Your task to perform on an android device: Go to internet settings Image 0: 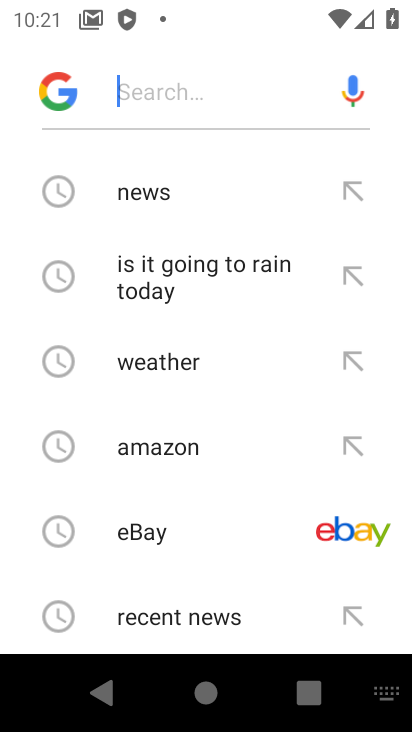
Step 0: press home button
Your task to perform on an android device: Go to internet settings Image 1: 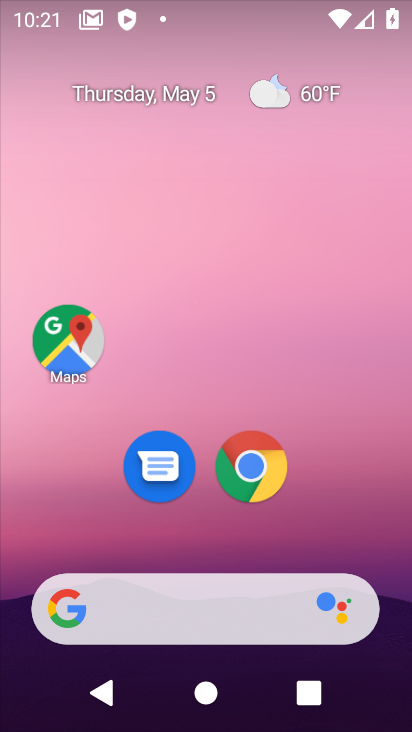
Step 1: drag from (157, 558) to (288, 226)
Your task to perform on an android device: Go to internet settings Image 2: 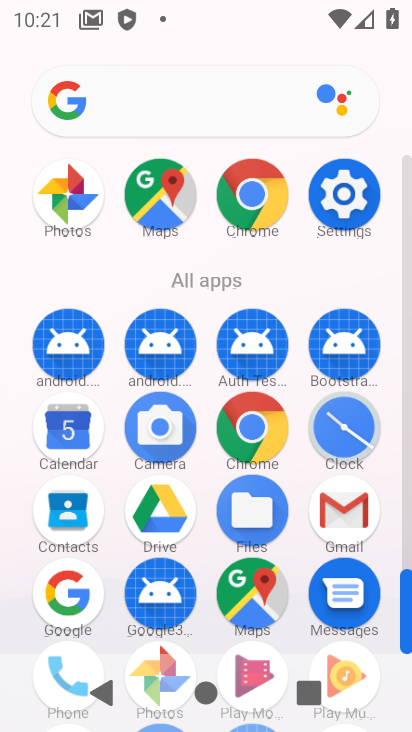
Step 2: click (352, 201)
Your task to perform on an android device: Go to internet settings Image 3: 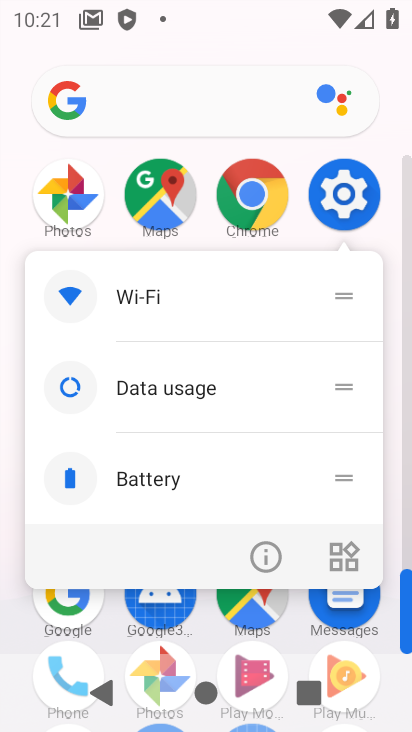
Step 3: click (338, 186)
Your task to perform on an android device: Go to internet settings Image 4: 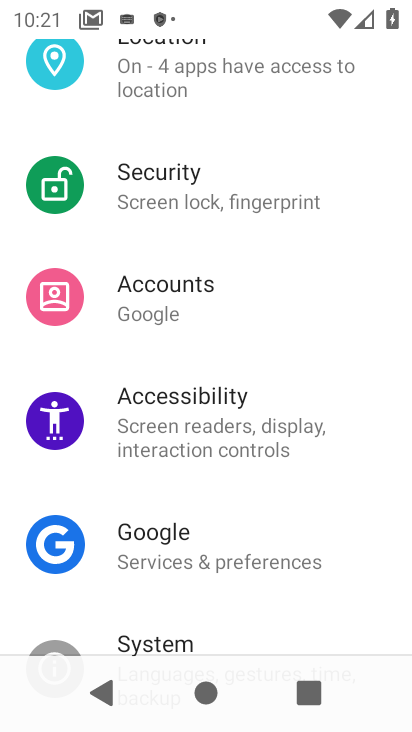
Step 4: drag from (218, 161) to (223, 644)
Your task to perform on an android device: Go to internet settings Image 5: 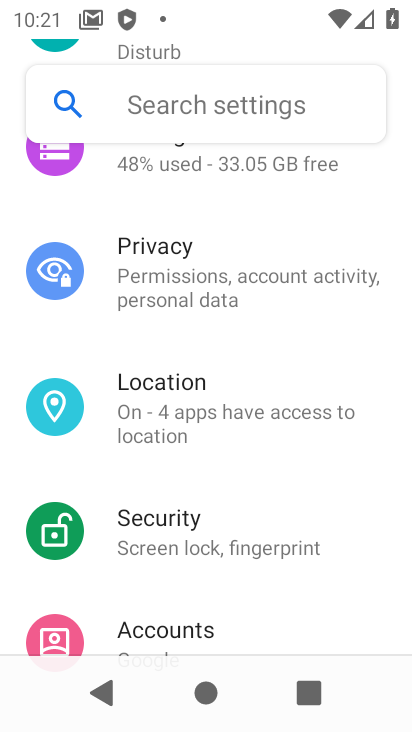
Step 5: drag from (305, 157) to (320, 577)
Your task to perform on an android device: Go to internet settings Image 6: 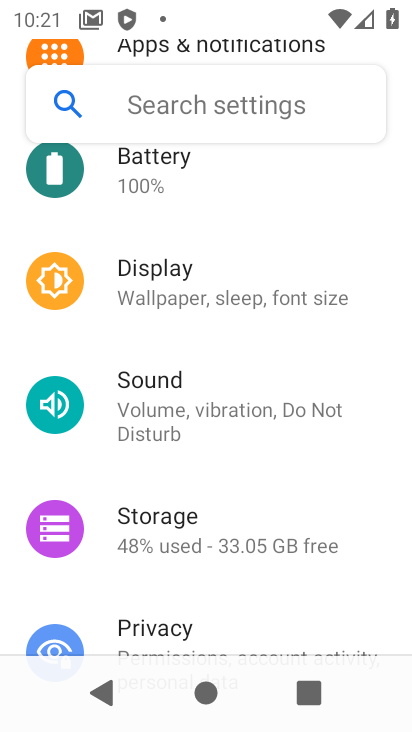
Step 6: drag from (266, 208) to (346, 680)
Your task to perform on an android device: Go to internet settings Image 7: 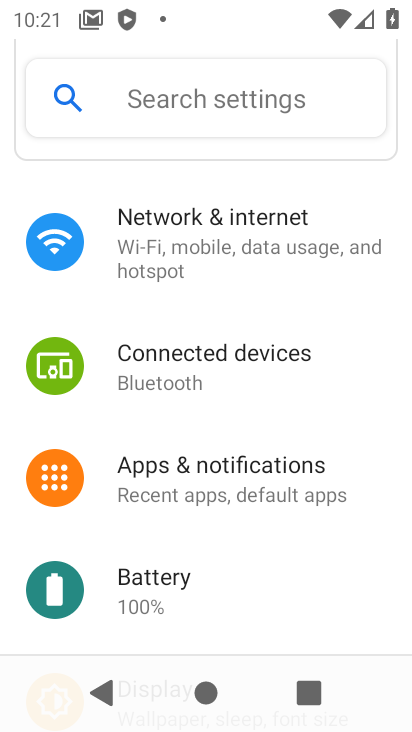
Step 7: click (282, 231)
Your task to perform on an android device: Go to internet settings Image 8: 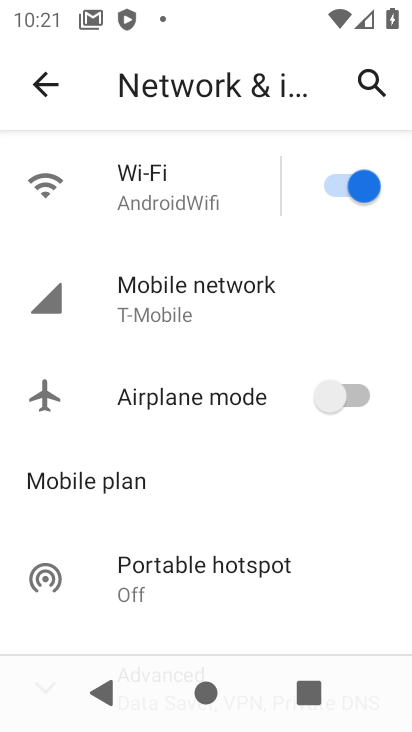
Step 8: drag from (256, 615) to (309, 207)
Your task to perform on an android device: Go to internet settings Image 9: 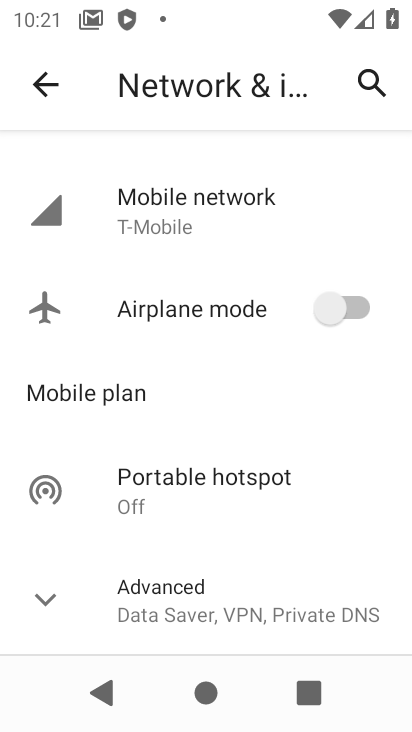
Step 9: click (185, 590)
Your task to perform on an android device: Go to internet settings Image 10: 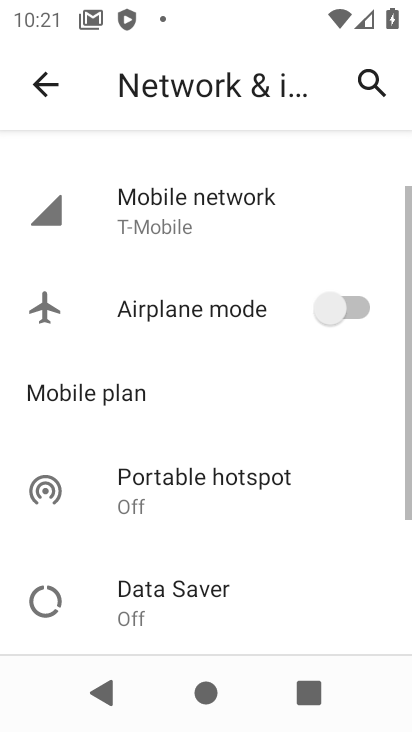
Step 10: task complete